Your task to perform on an android device: Show me recent news Image 0: 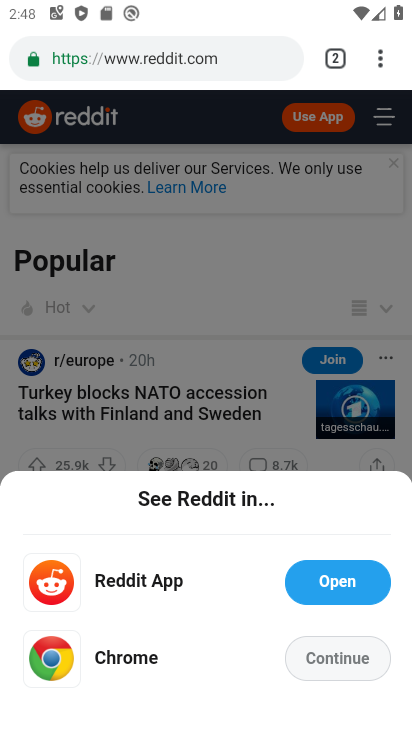
Step 0: press home button
Your task to perform on an android device: Show me recent news Image 1: 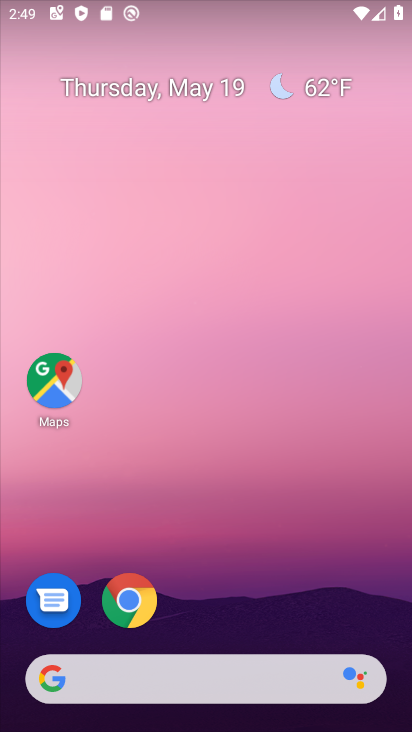
Step 1: click (244, 681)
Your task to perform on an android device: Show me recent news Image 2: 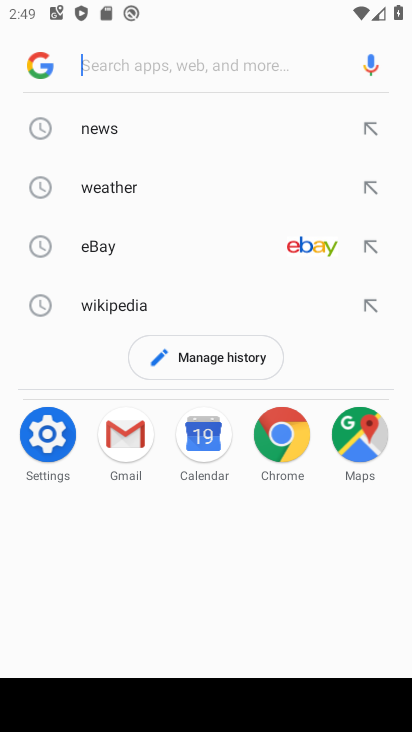
Step 2: click (101, 124)
Your task to perform on an android device: Show me recent news Image 3: 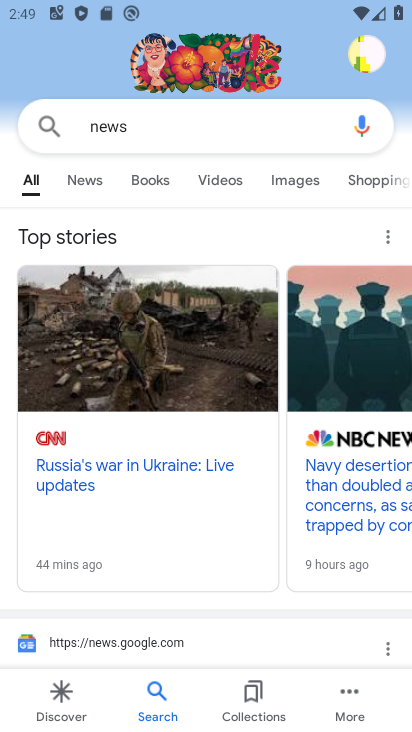
Step 3: task complete